Your task to perform on an android device: Open Youtube and go to the subscriptions tab Image 0: 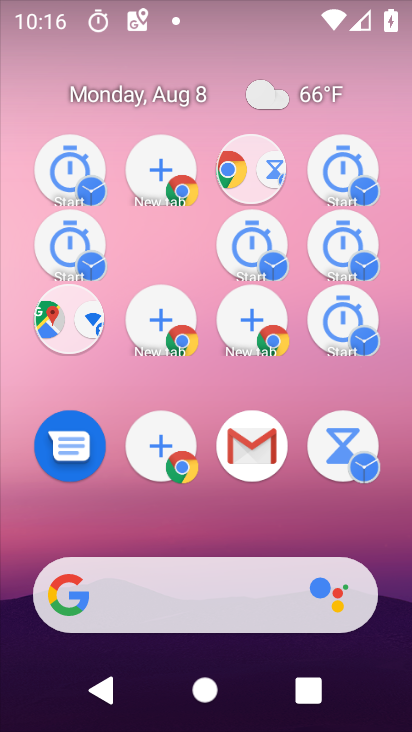
Step 0: drag from (326, 267) to (326, 152)
Your task to perform on an android device: Open Youtube and go to the subscriptions tab Image 1: 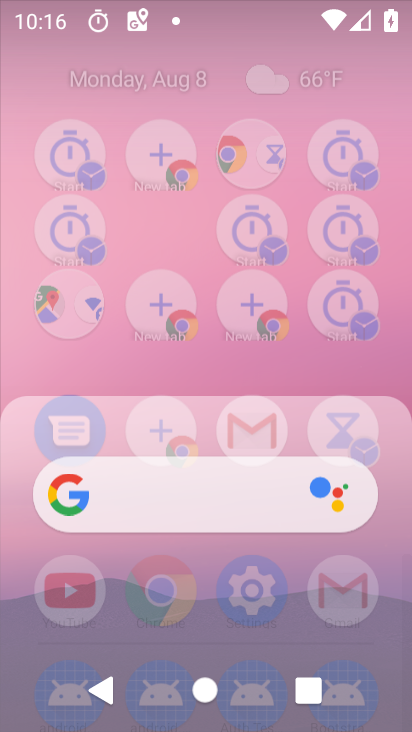
Step 1: drag from (290, 629) to (243, 189)
Your task to perform on an android device: Open Youtube and go to the subscriptions tab Image 2: 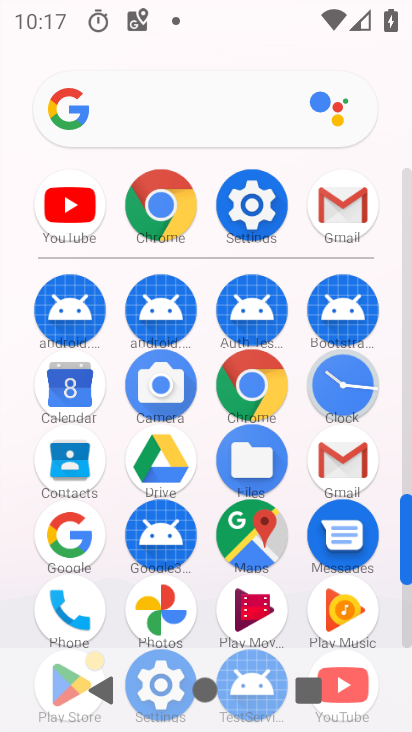
Step 2: click (47, 204)
Your task to perform on an android device: Open Youtube and go to the subscriptions tab Image 3: 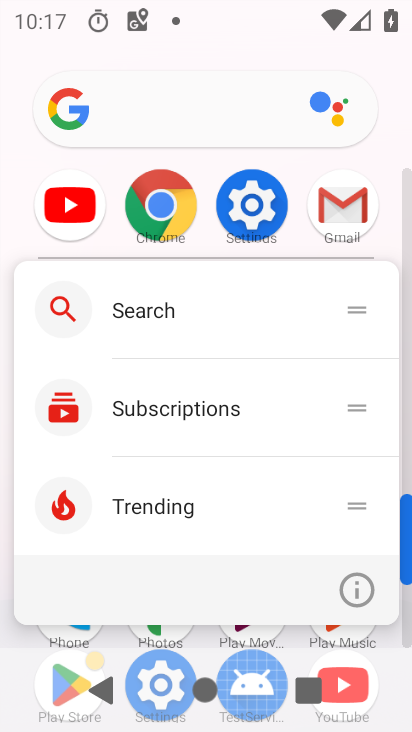
Step 3: click (170, 423)
Your task to perform on an android device: Open Youtube and go to the subscriptions tab Image 4: 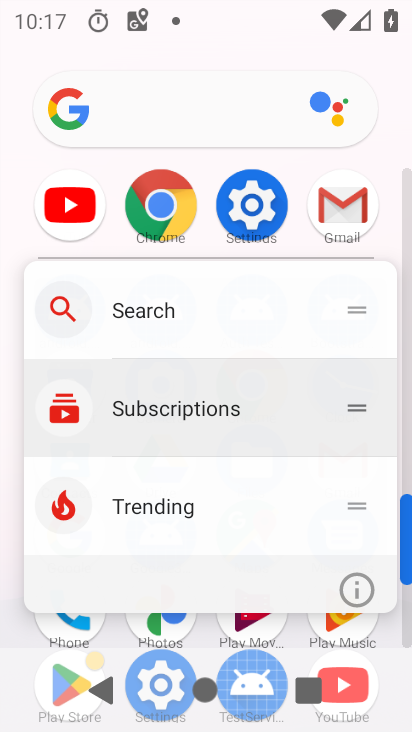
Step 4: click (171, 423)
Your task to perform on an android device: Open Youtube and go to the subscriptions tab Image 5: 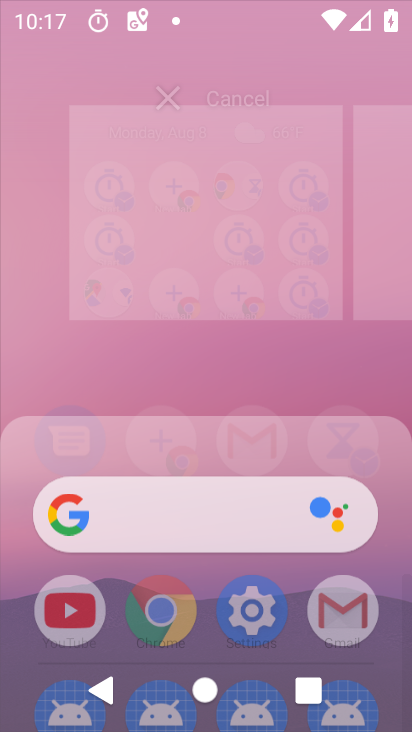
Step 5: click (179, 426)
Your task to perform on an android device: Open Youtube and go to the subscriptions tab Image 6: 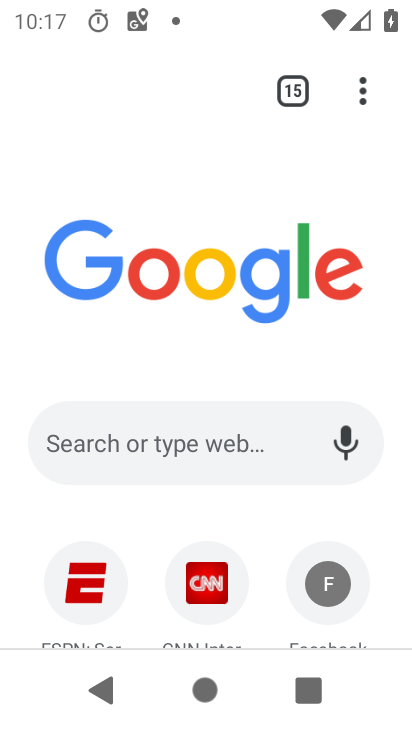
Step 6: task complete